Your task to perform on an android device: How much does the Vizio TV cost? Image 0: 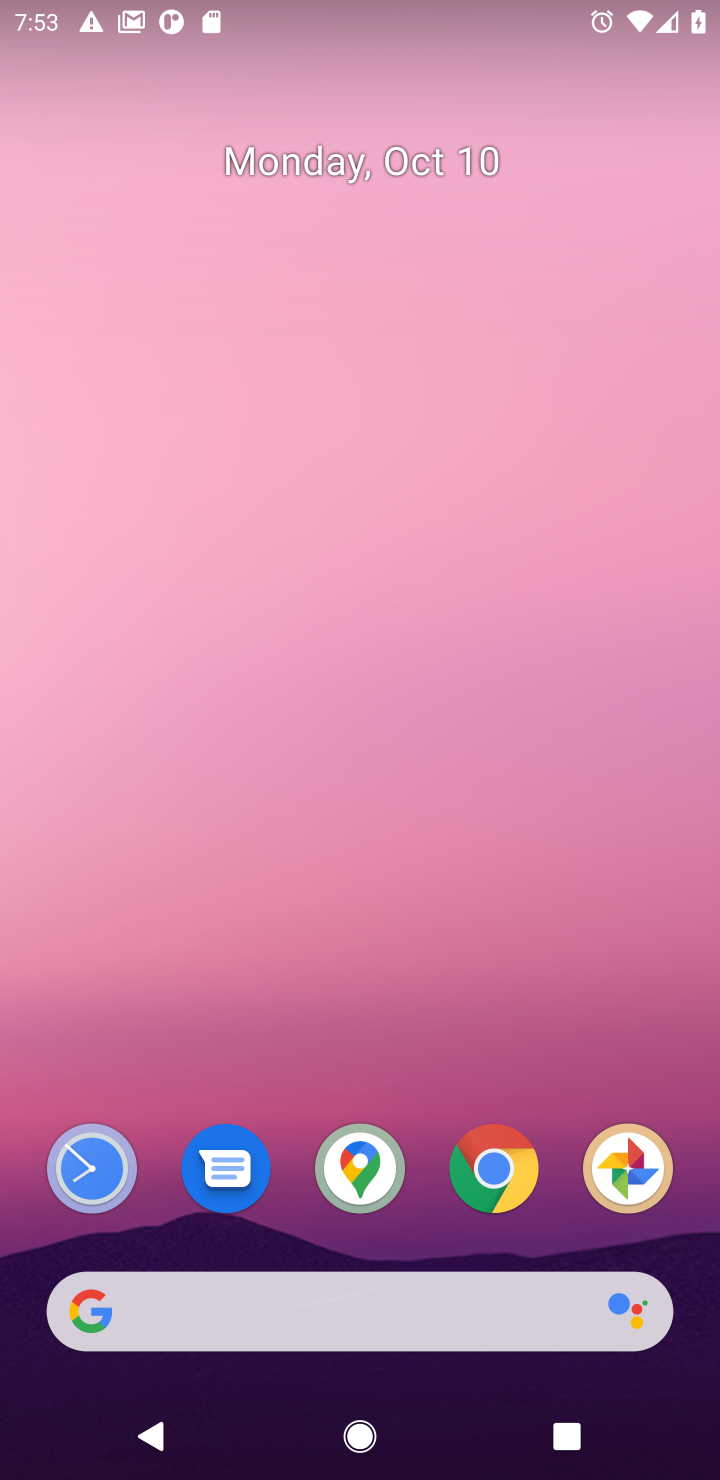
Step 0: click (512, 1182)
Your task to perform on an android device: How much does the Vizio TV cost? Image 1: 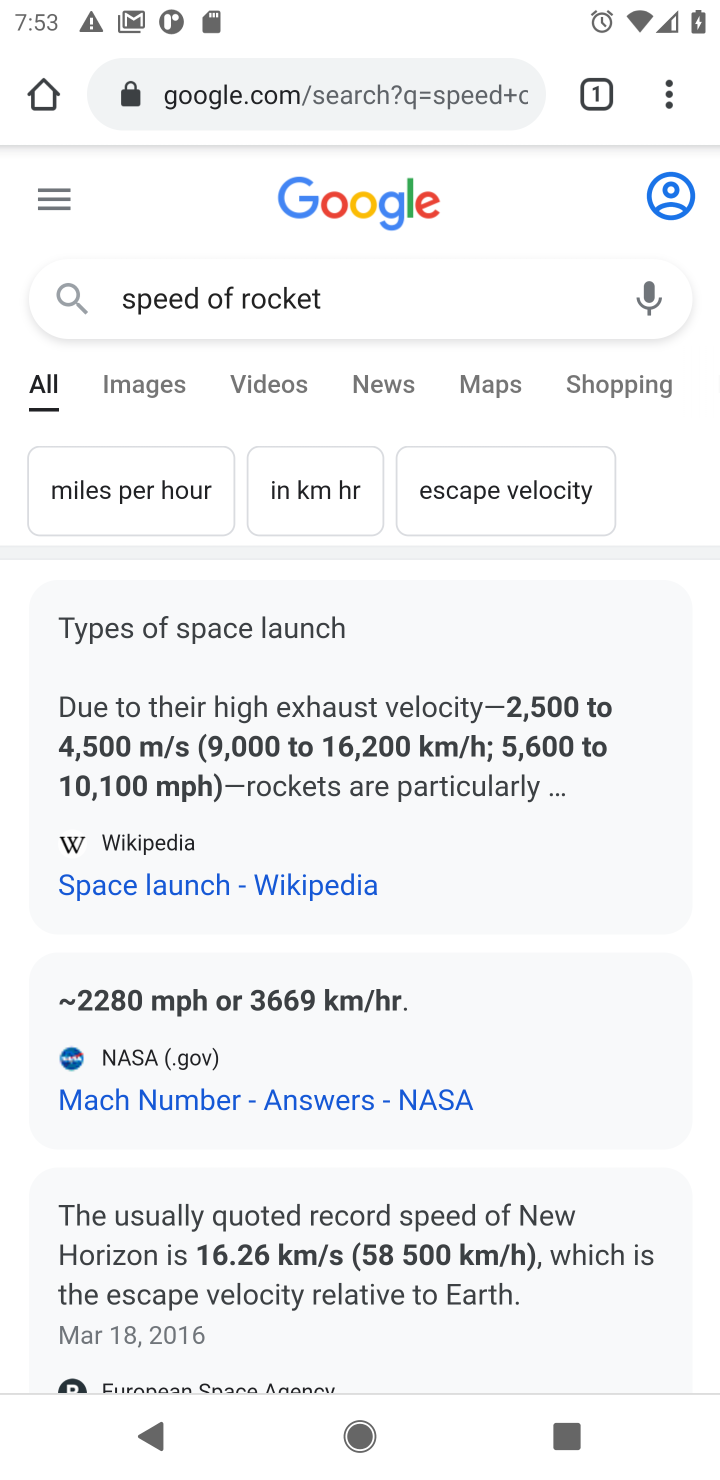
Step 1: click (296, 112)
Your task to perform on an android device: How much does the Vizio TV cost? Image 2: 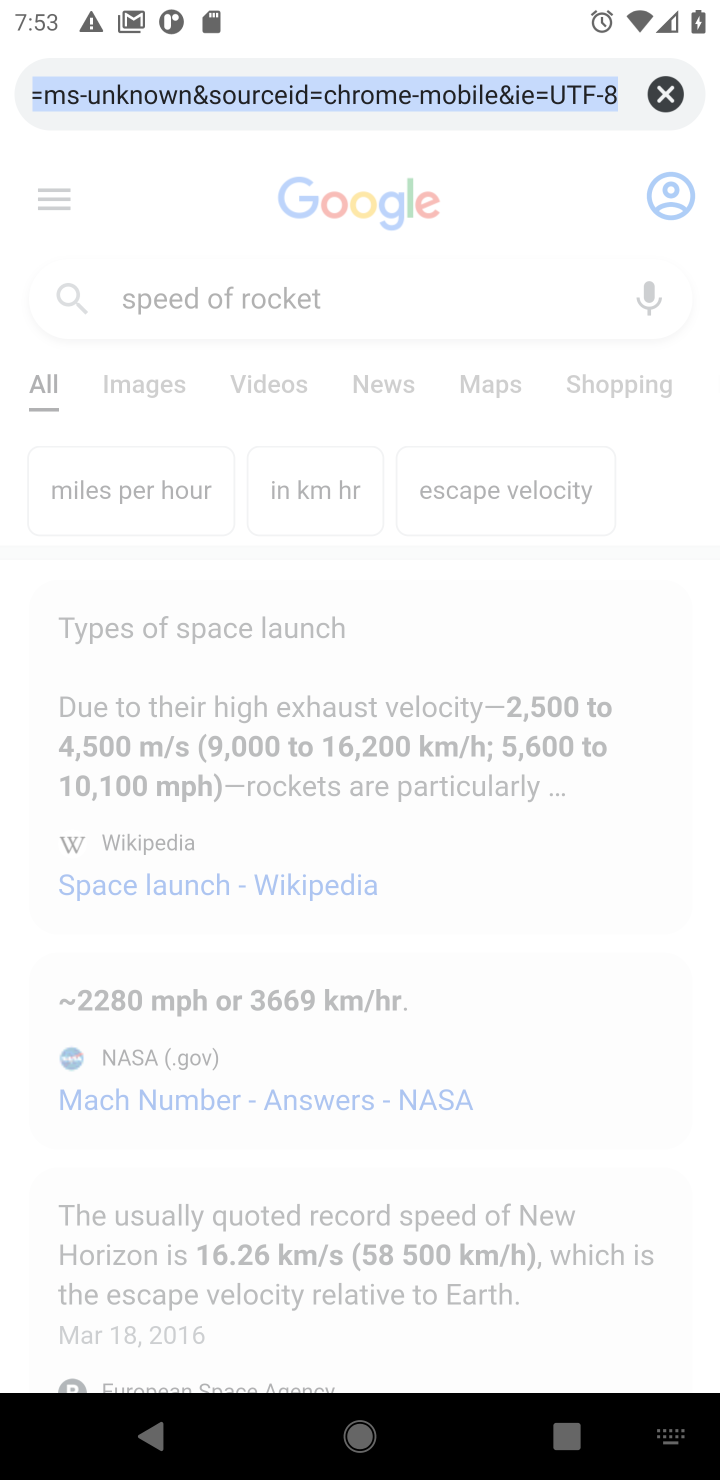
Step 2: click (656, 97)
Your task to perform on an android device: How much does the Vizio TV cost? Image 3: 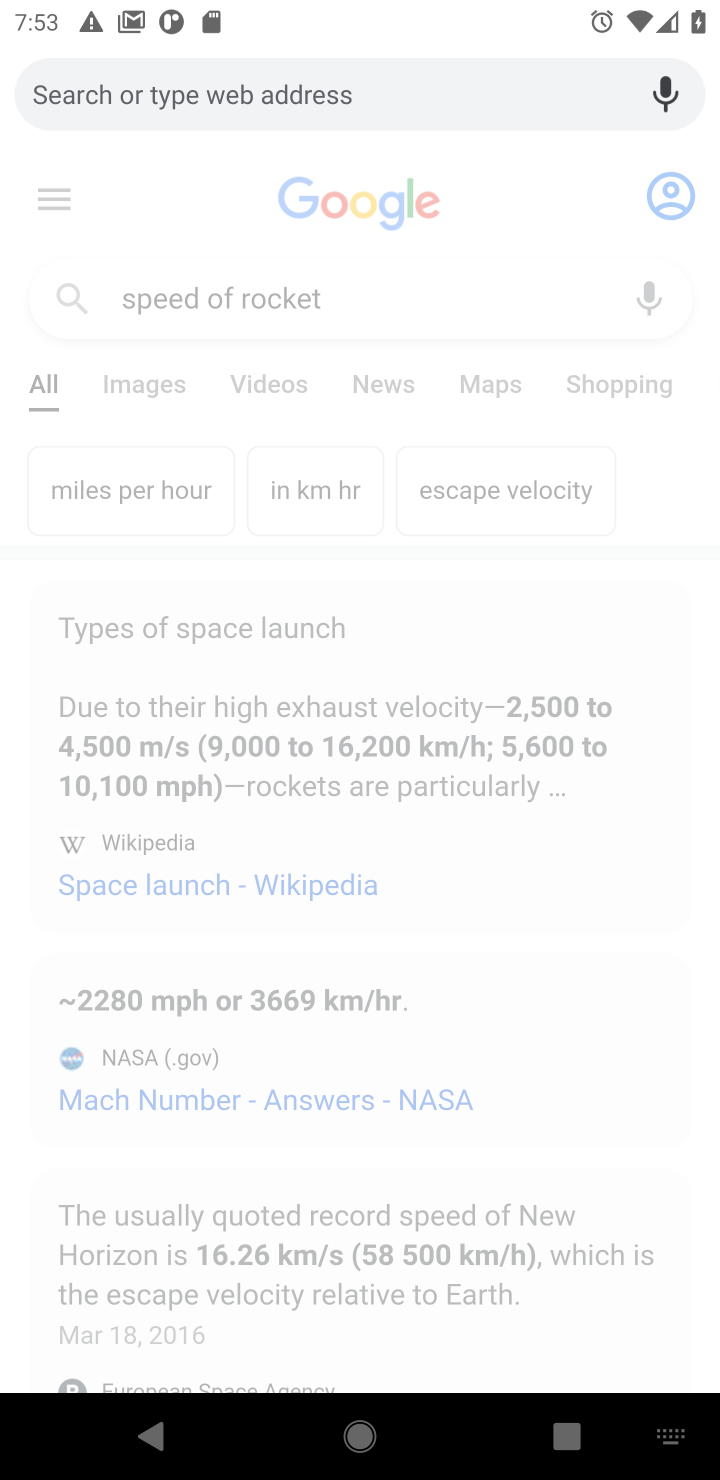
Step 3: type " Vizio TV cost"
Your task to perform on an android device: How much does the Vizio TV cost? Image 4: 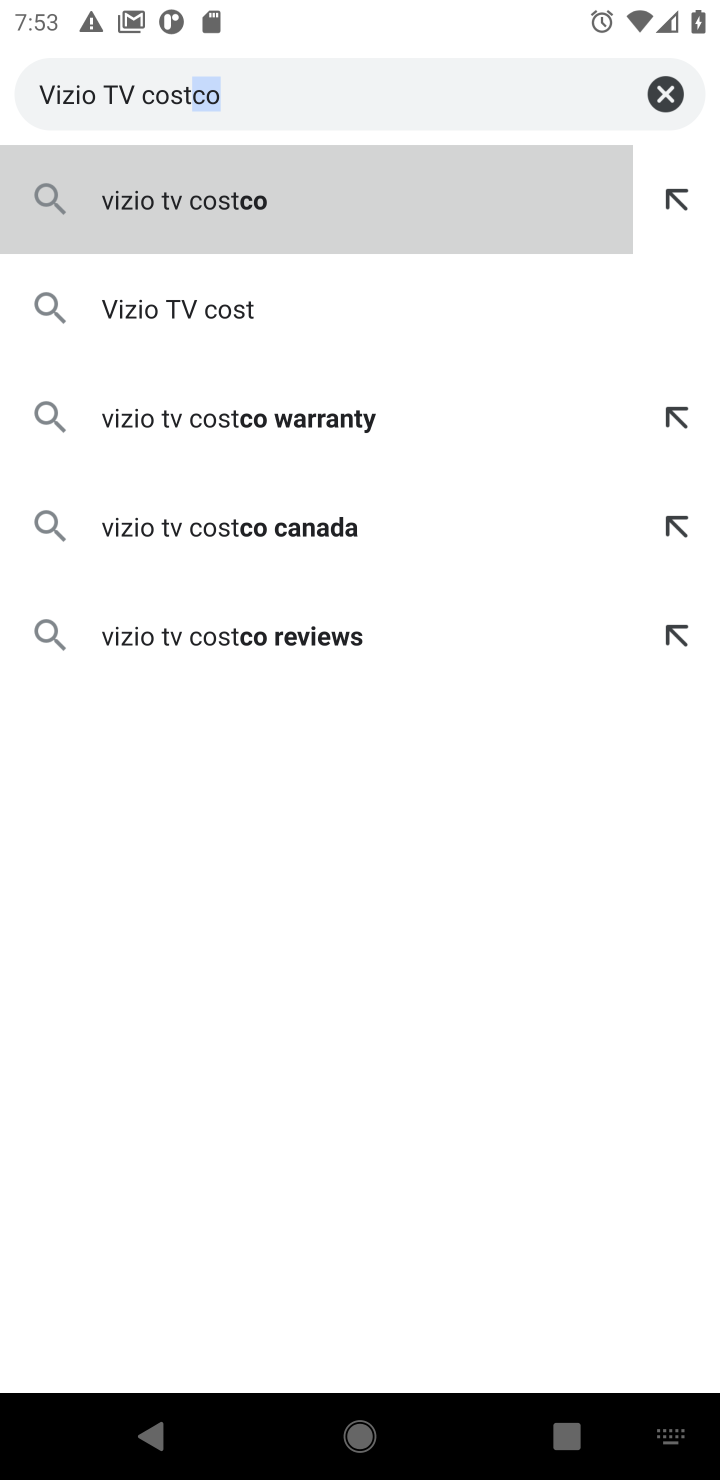
Step 4: click (179, 335)
Your task to perform on an android device: How much does the Vizio TV cost? Image 5: 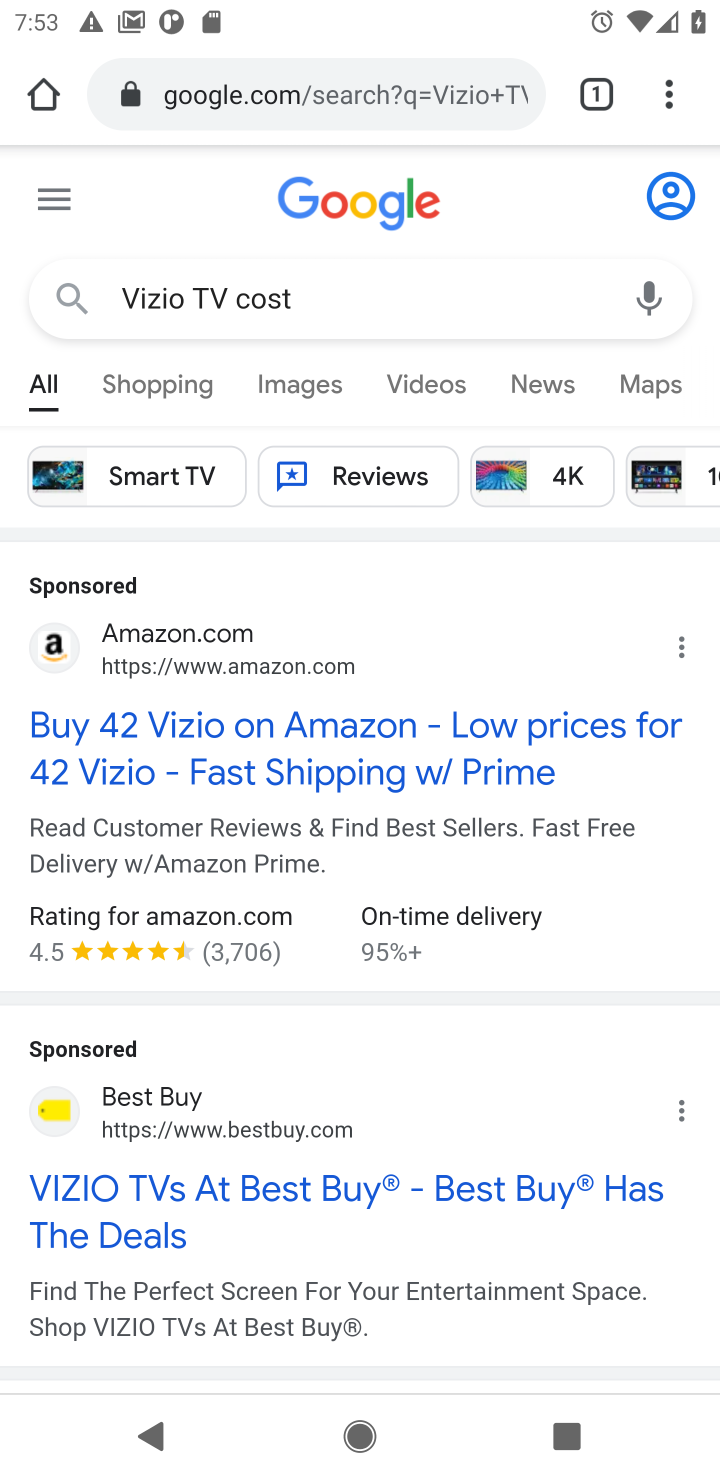
Step 5: drag from (262, 847) to (262, 626)
Your task to perform on an android device: How much does the Vizio TV cost? Image 6: 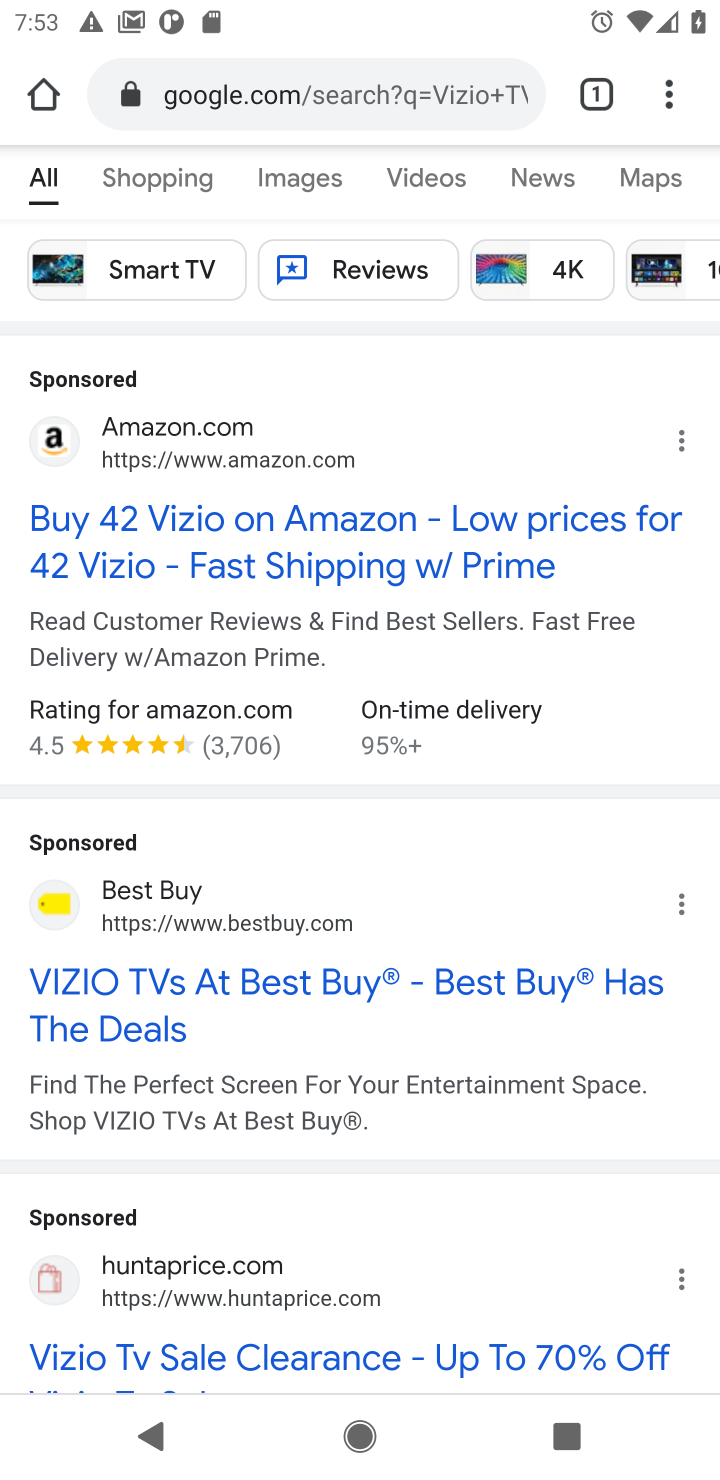
Step 6: drag from (228, 496) to (232, 887)
Your task to perform on an android device: How much does the Vizio TV cost? Image 7: 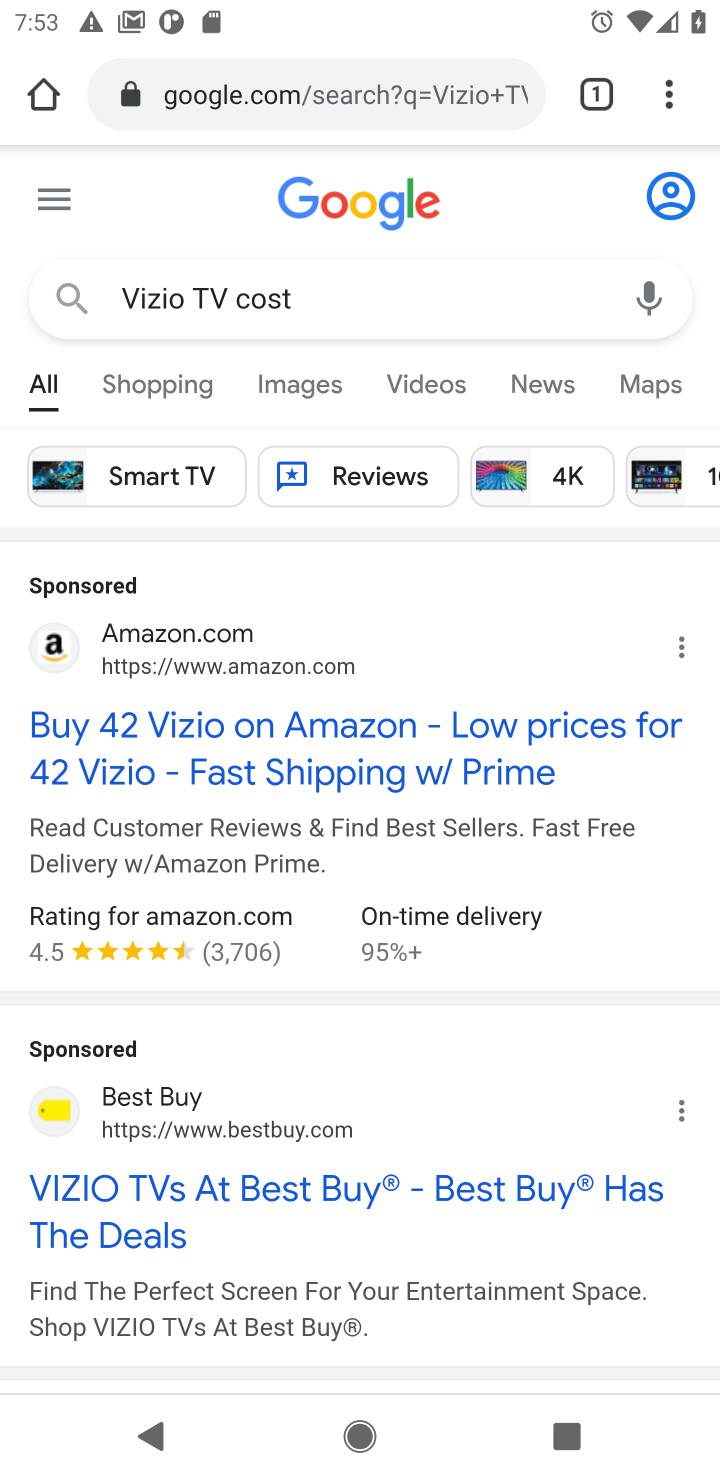
Step 7: click (153, 407)
Your task to perform on an android device: How much does the Vizio TV cost? Image 8: 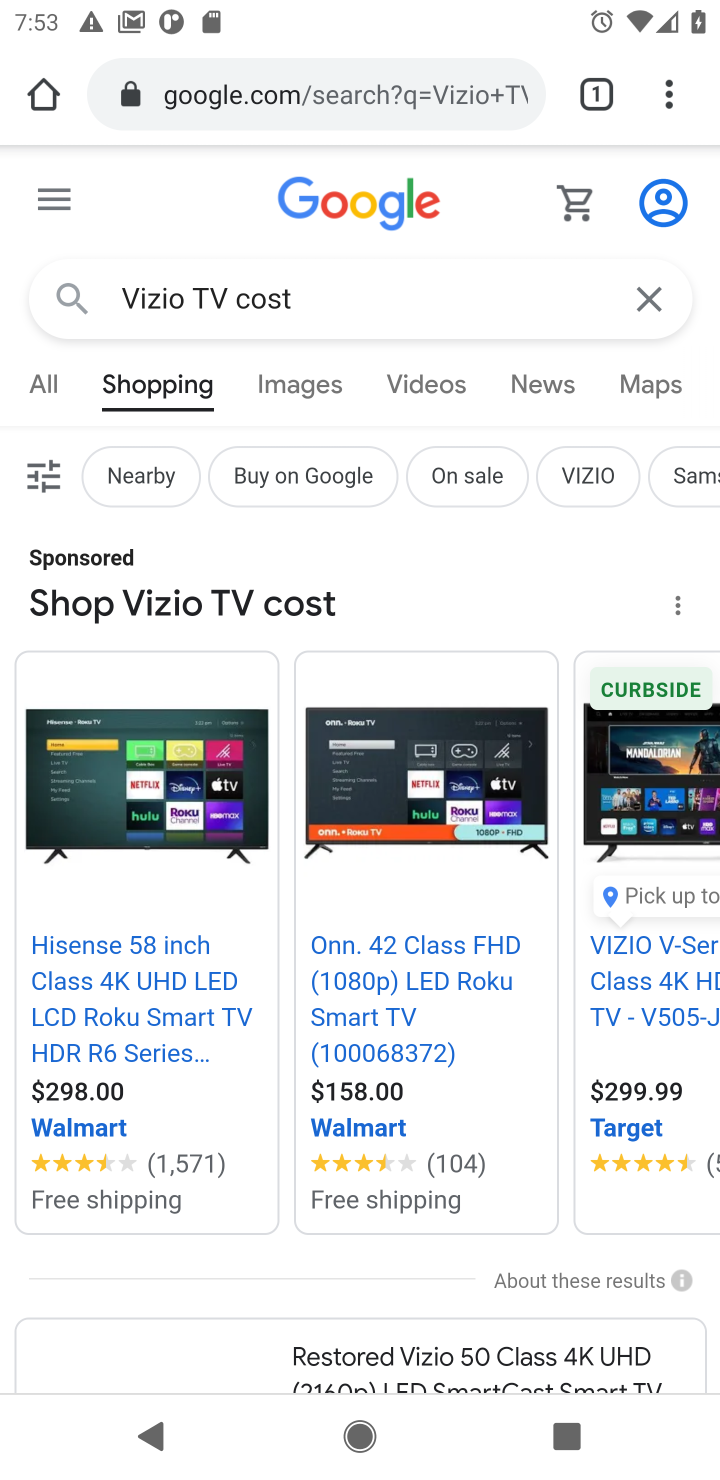
Step 8: task complete